Your task to perform on an android device: make emails show in primary in the gmail app Image 0: 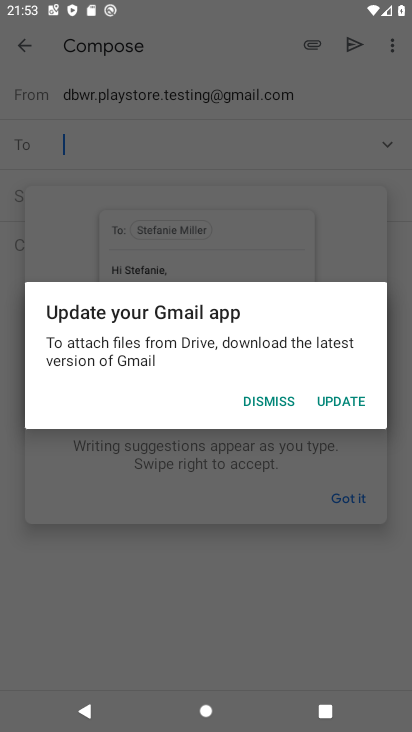
Step 0: press home button
Your task to perform on an android device: make emails show in primary in the gmail app Image 1: 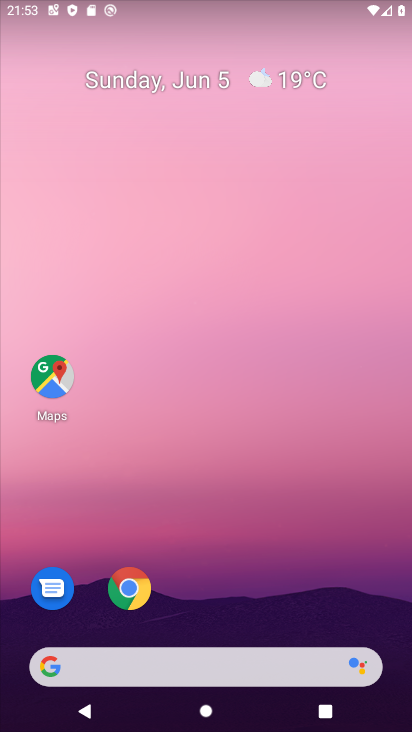
Step 1: drag from (361, 593) to (350, 208)
Your task to perform on an android device: make emails show in primary in the gmail app Image 2: 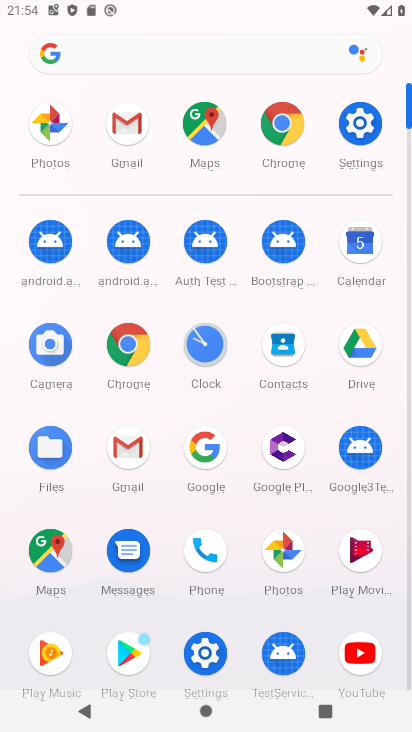
Step 2: click (126, 443)
Your task to perform on an android device: make emails show in primary in the gmail app Image 3: 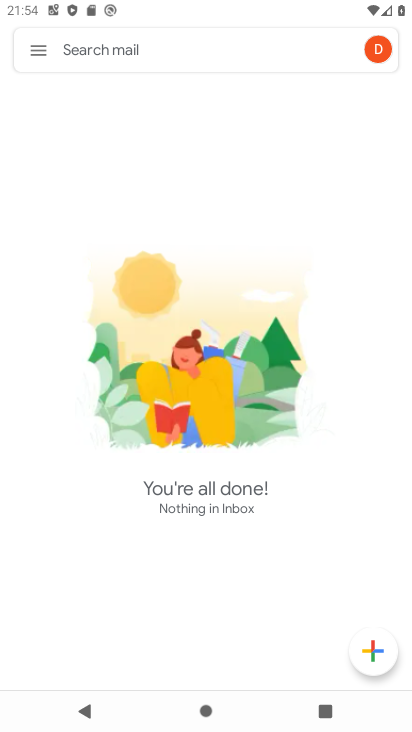
Step 3: click (33, 42)
Your task to perform on an android device: make emails show in primary in the gmail app Image 4: 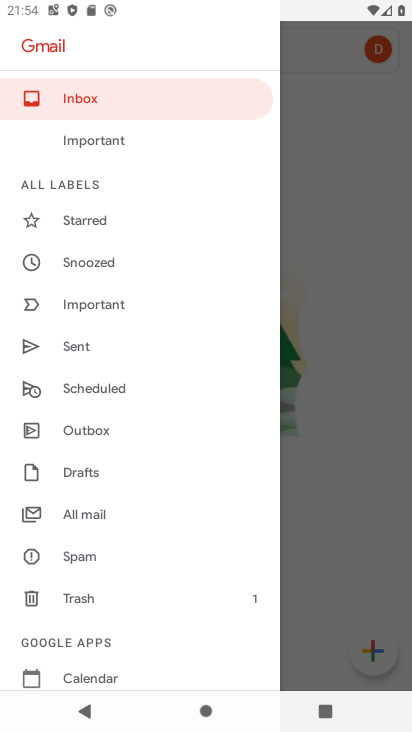
Step 4: drag from (200, 460) to (205, 386)
Your task to perform on an android device: make emails show in primary in the gmail app Image 5: 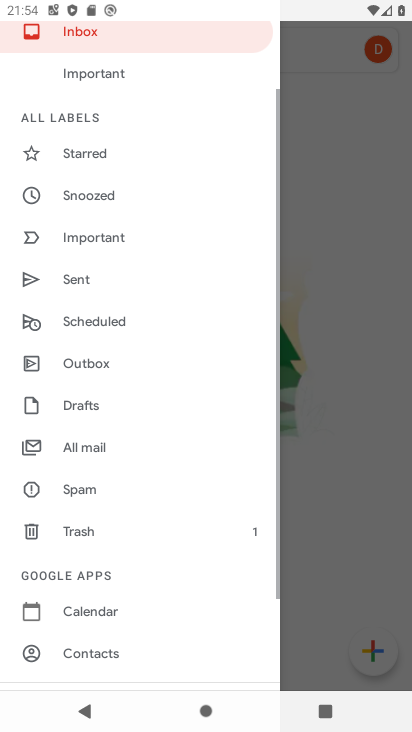
Step 5: drag from (188, 467) to (189, 377)
Your task to perform on an android device: make emails show in primary in the gmail app Image 6: 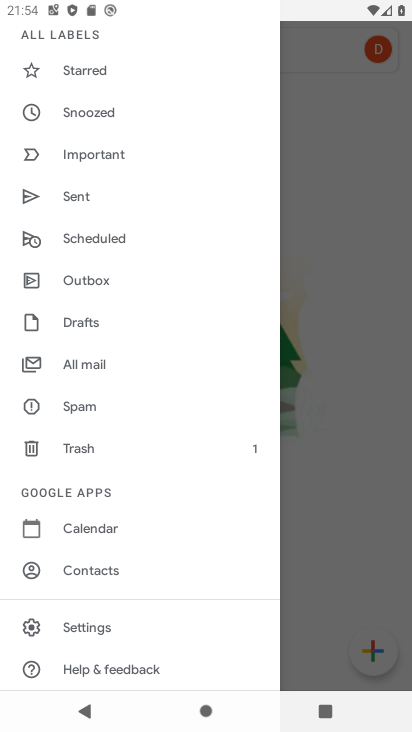
Step 6: drag from (200, 479) to (204, 362)
Your task to perform on an android device: make emails show in primary in the gmail app Image 7: 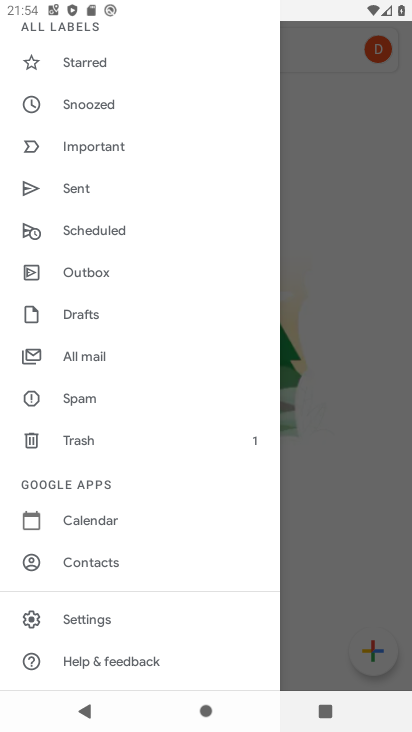
Step 7: click (92, 624)
Your task to perform on an android device: make emails show in primary in the gmail app Image 8: 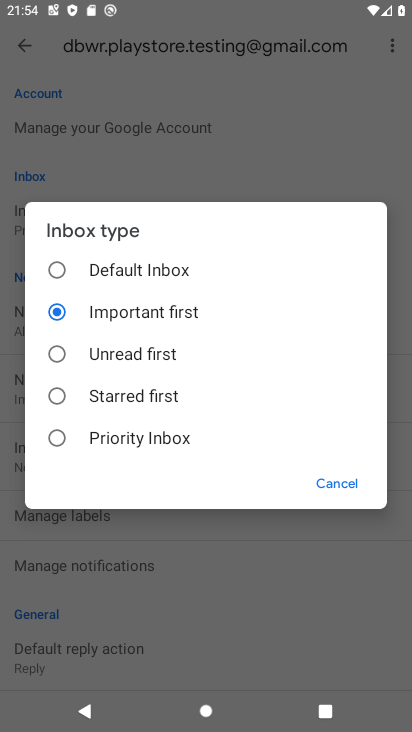
Step 8: click (132, 269)
Your task to perform on an android device: make emails show in primary in the gmail app Image 9: 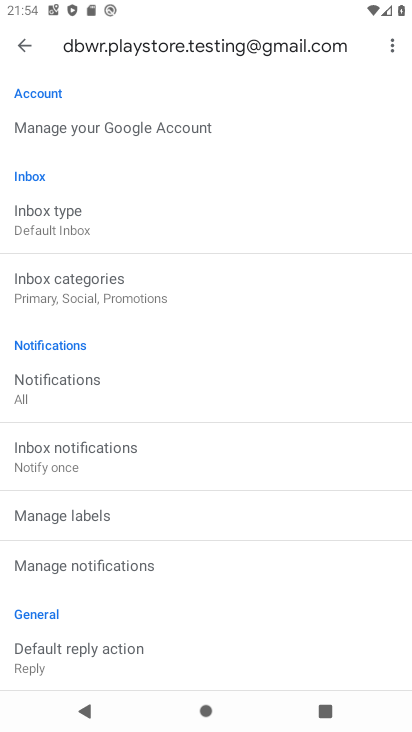
Step 9: click (109, 285)
Your task to perform on an android device: make emails show in primary in the gmail app Image 10: 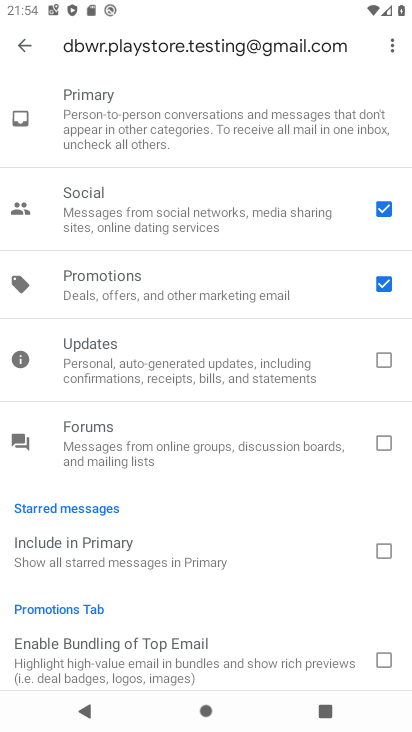
Step 10: click (388, 282)
Your task to perform on an android device: make emails show in primary in the gmail app Image 11: 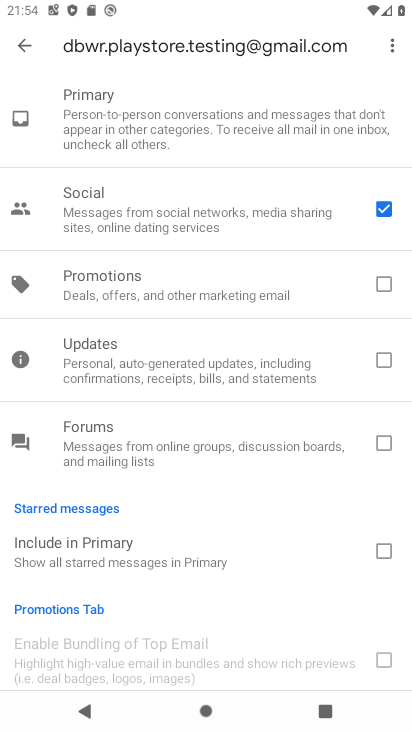
Step 11: click (377, 216)
Your task to perform on an android device: make emails show in primary in the gmail app Image 12: 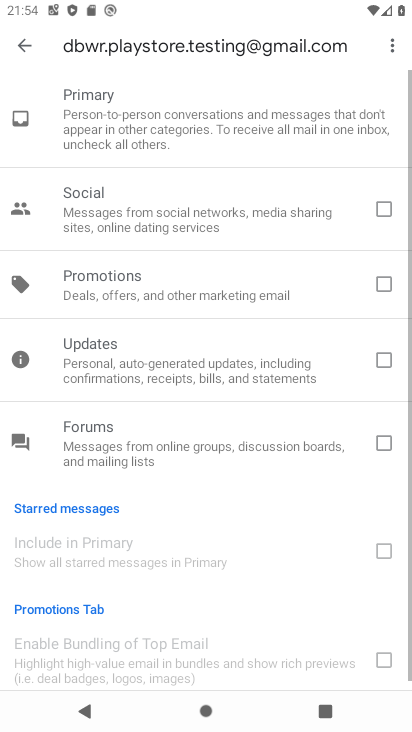
Step 12: task complete